Your task to perform on an android device: What's the weather going to be tomorrow? Image 0: 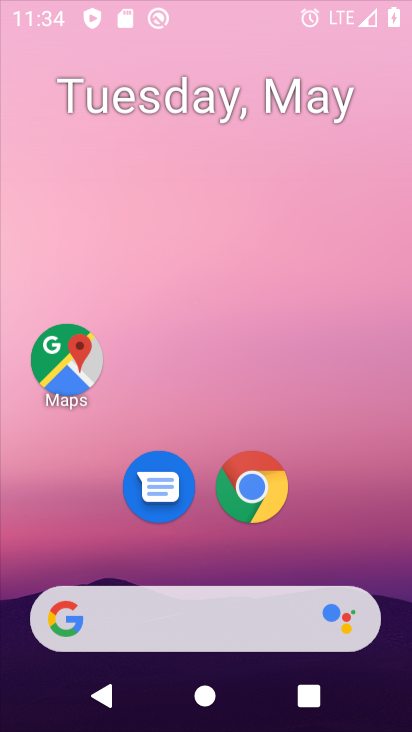
Step 0: click (402, 201)
Your task to perform on an android device: What's the weather going to be tomorrow? Image 1: 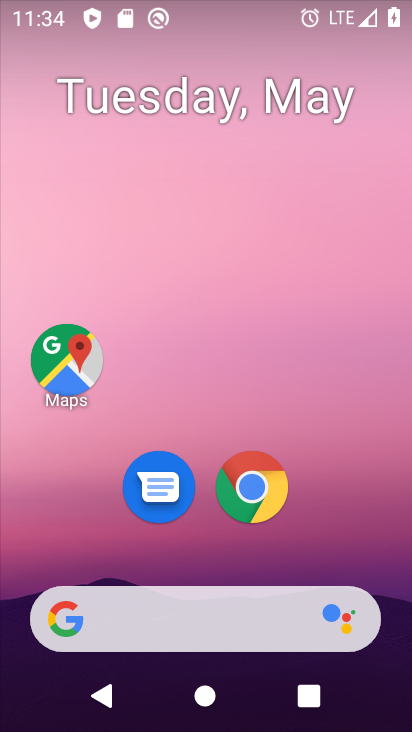
Step 1: drag from (242, 350) to (221, 57)
Your task to perform on an android device: What's the weather going to be tomorrow? Image 2: 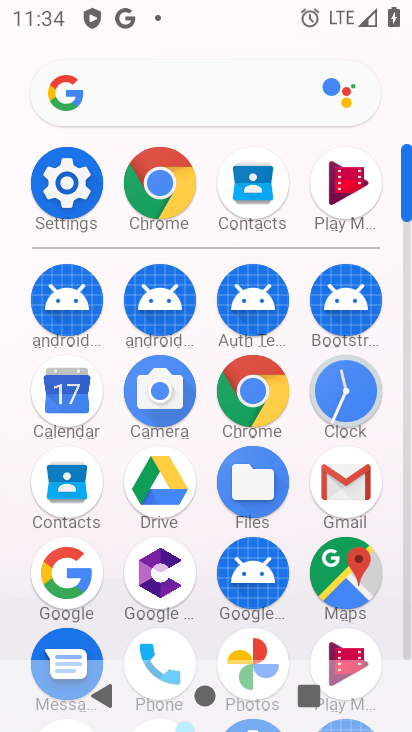
Step 2: click (169, 99)
Your task to perform on an android device: What's the weather going to be tomorrow? Image 3: 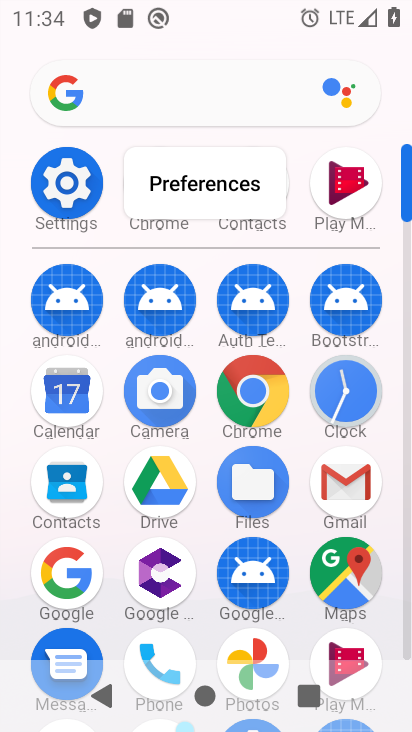
Step 3: click (215, 91)
Your task to perform on an android device: What's the weather going to be tomorrow? Image 4: 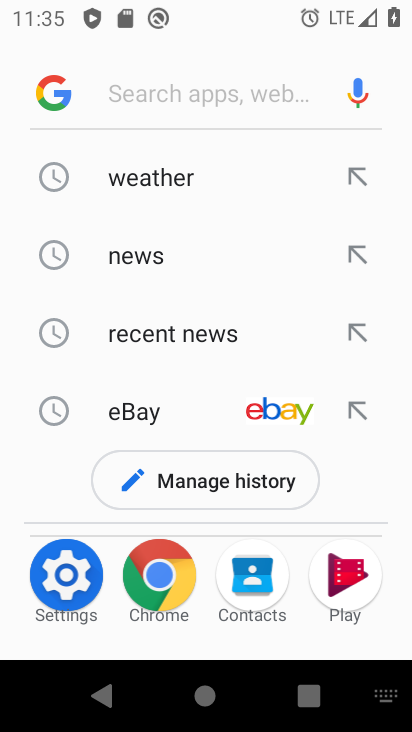
Step 4: type "weather going to be tomorrow"
Your task to perform on an android device: What's the weather going to be tomorrow? Image 5: 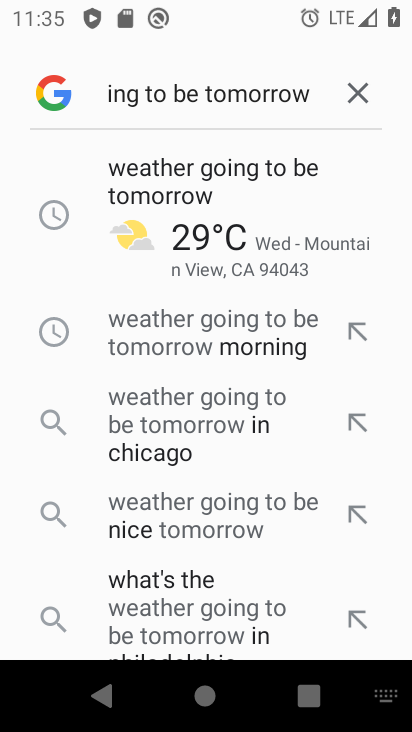
Step 5: click (202, 175)
Your task to perform on an android device: What's the weather going to be tomorrow? Image 6: 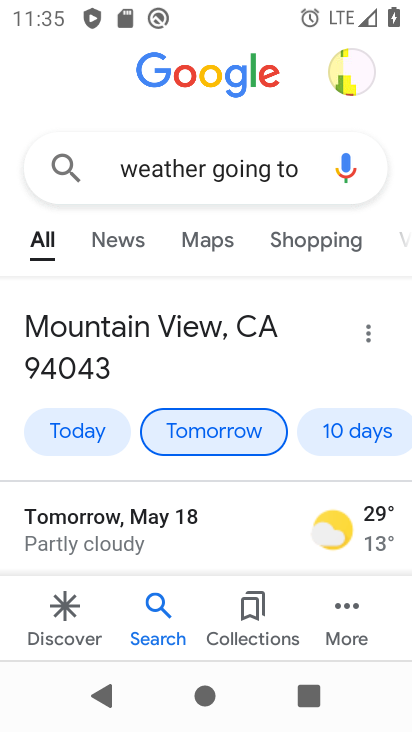
Step 6: task complete